Your task to perform on an android device: Open privacy settings Image 0: 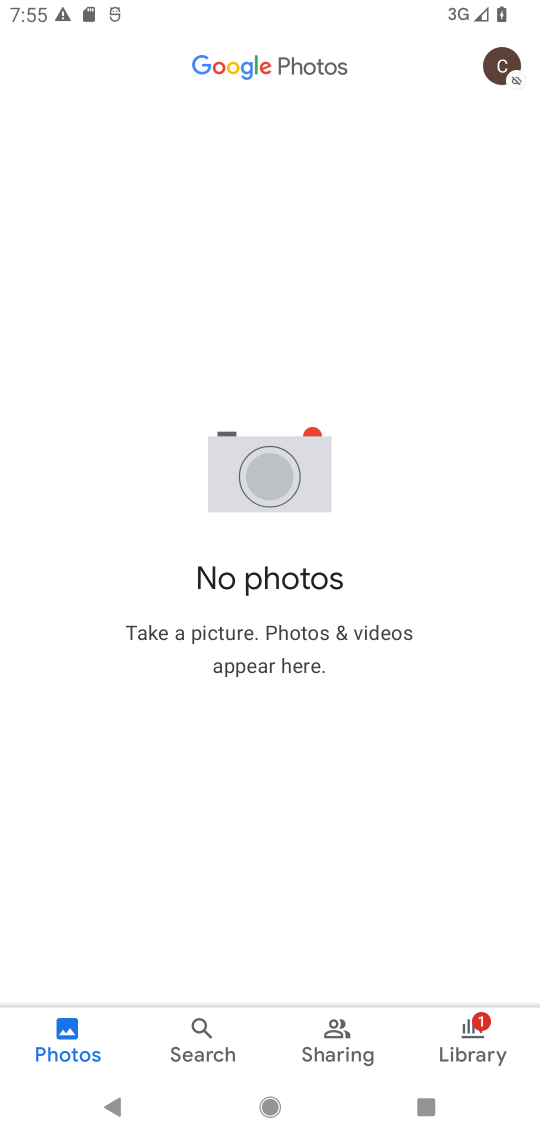
Step 0: press home button
Your task to perform on an android device: Open privacy settings Image 1: 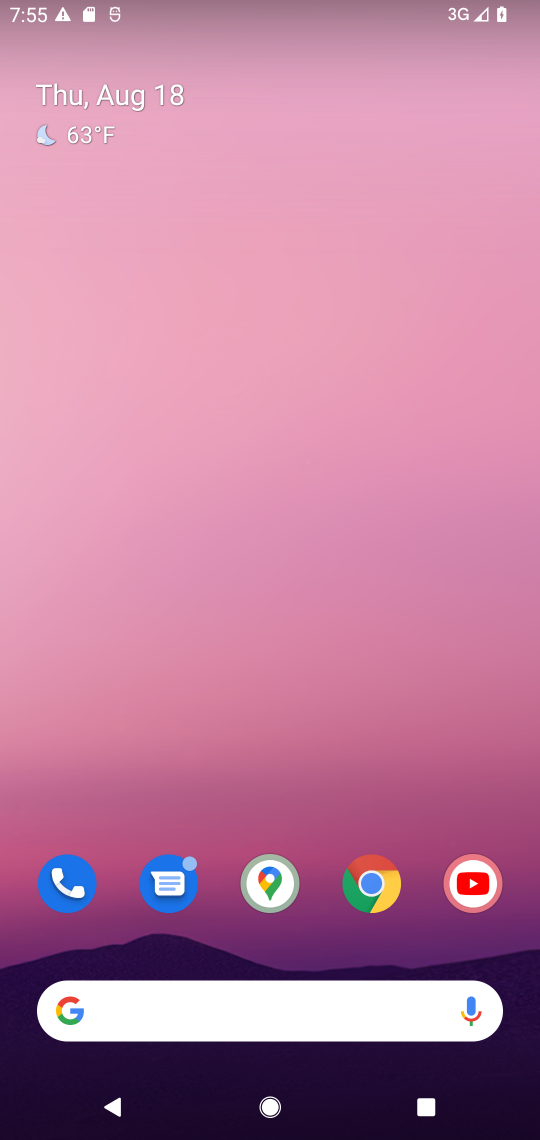
Step 1: drag from (15, 1067) to (433, 237)
Your task to perform on an android device: Open privacy settings Image 2: 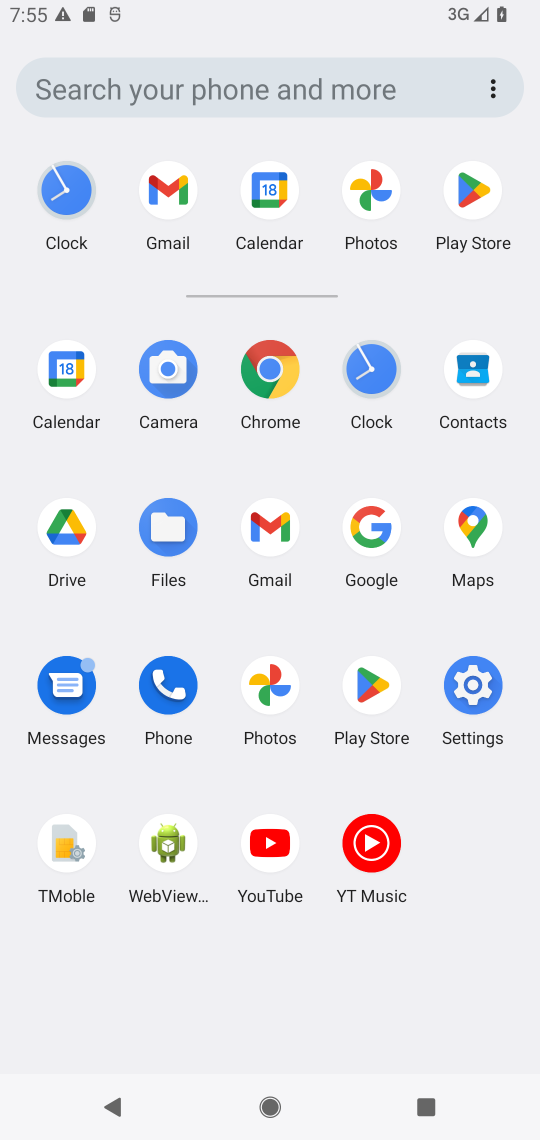
Step 2: click (448, 690)
Your task to perform on an android device: Open privacy settings Image 3: 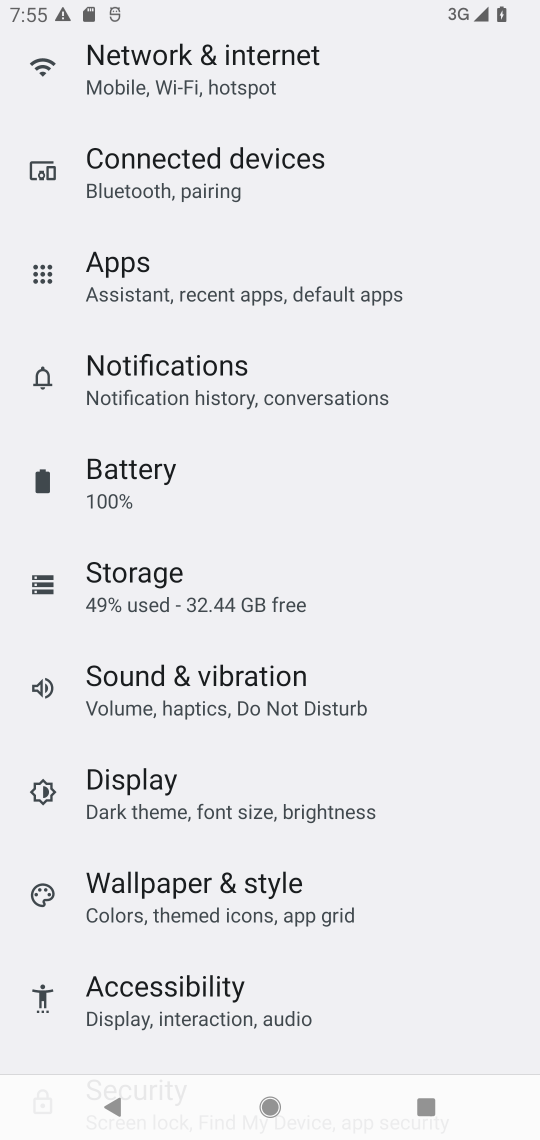
Step 3: drag from (426, 97) to (471, 517)
Your task to perform on an android device: Open privacy settings Image 4: 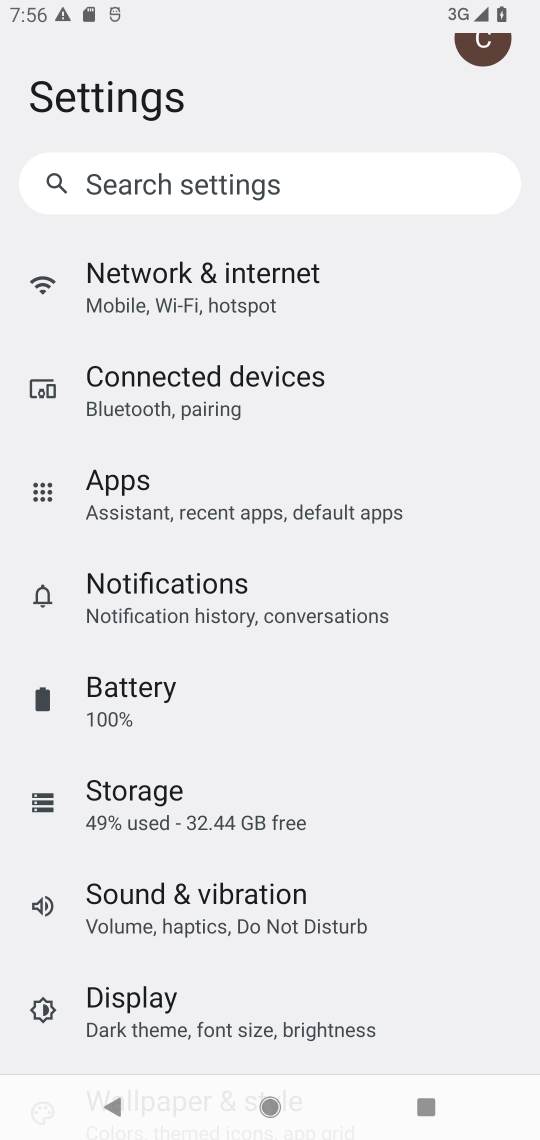
Step 4: drag from (462, 863) to (484, 347)
Your task to perform on an android device: Open privacy settings Image 5: 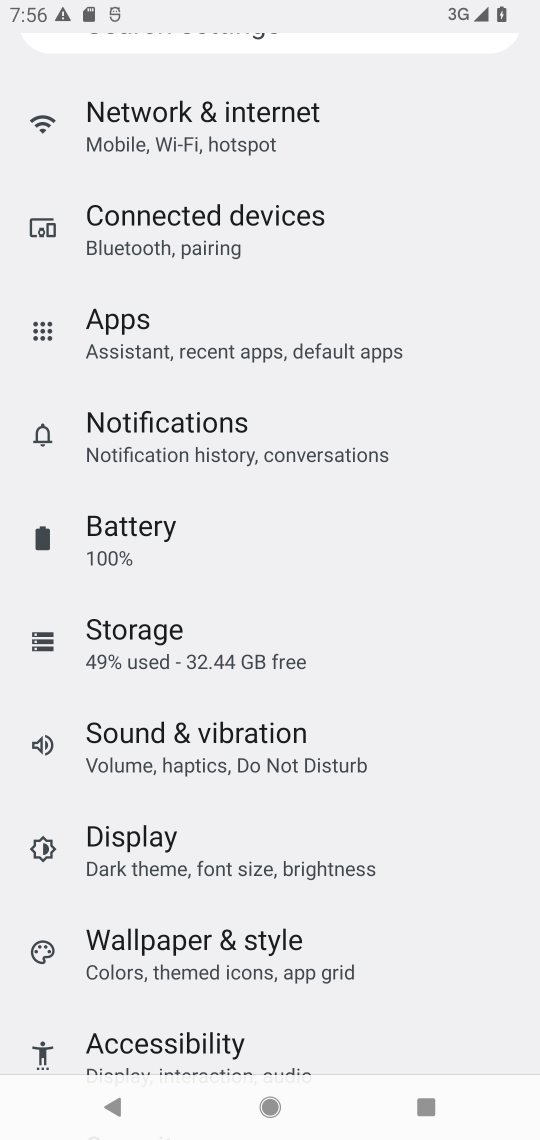
Step 5: drag from (452, 975) to (383, 261)
Your task to perform on an android device: Open privacy settings Image 6: 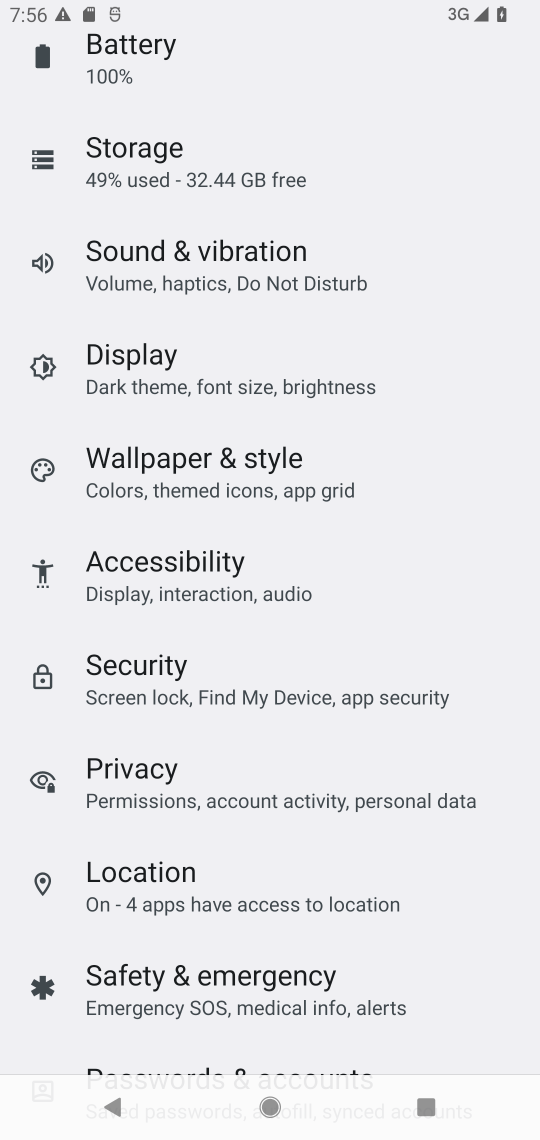
Step 6: click (122, 778)
Your task to perform on an android device: Open privacy settings Image 7: 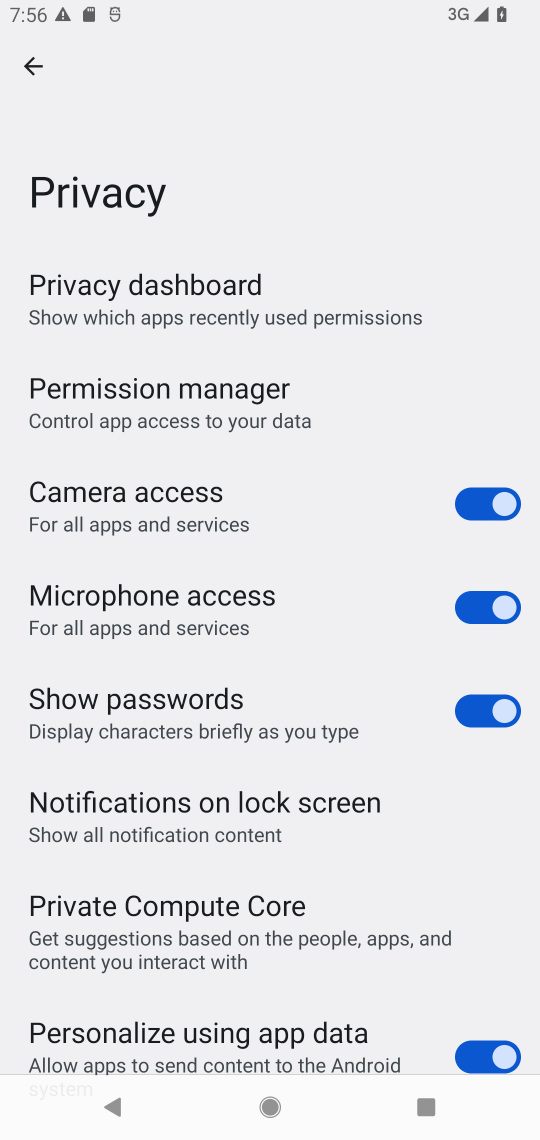
Step 7: task complete